Your task to perform on an android device: set an alarm Image 0: 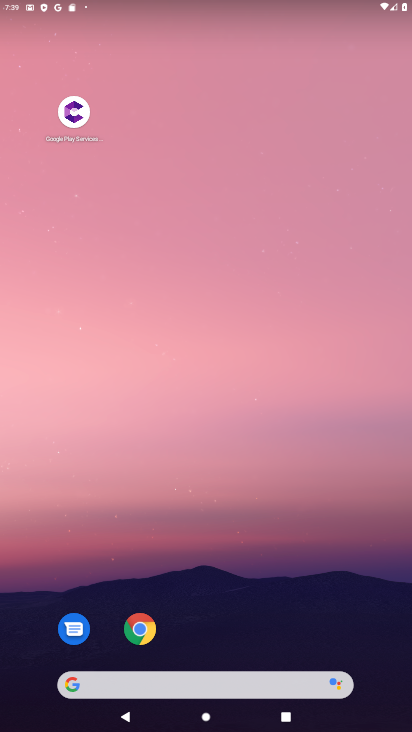
Step 0: drag from (225, 658) to (228, 34)
Your task to perform on an android device: set an alarm Image 1: 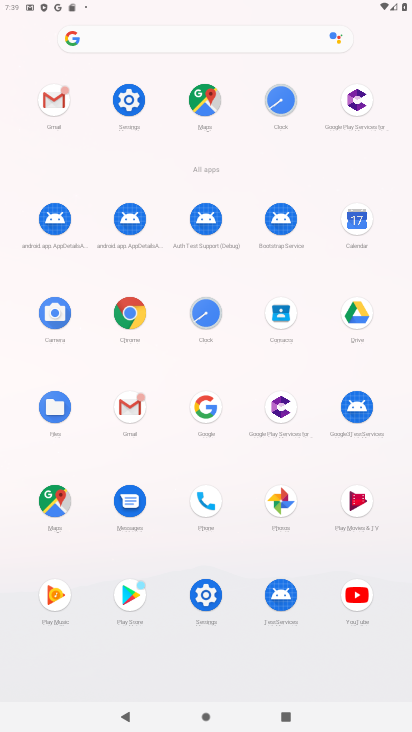
Step 1: click (178, 311)
Your task to perform on an android device: set an alarm Image 2: 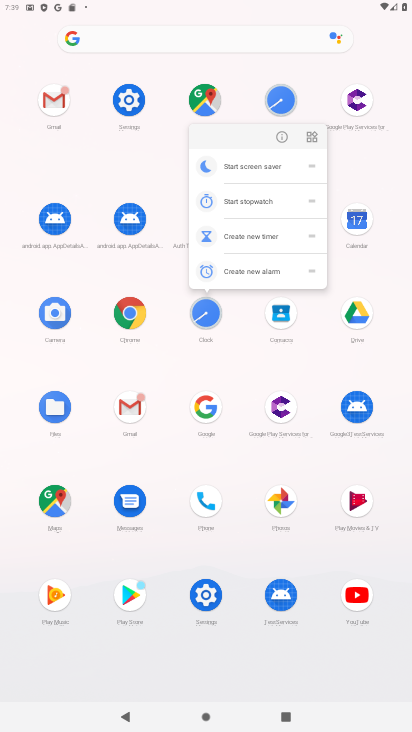
Step 2: click (212, 321)
Your task to perform on an android device: set an alarm Image 3: 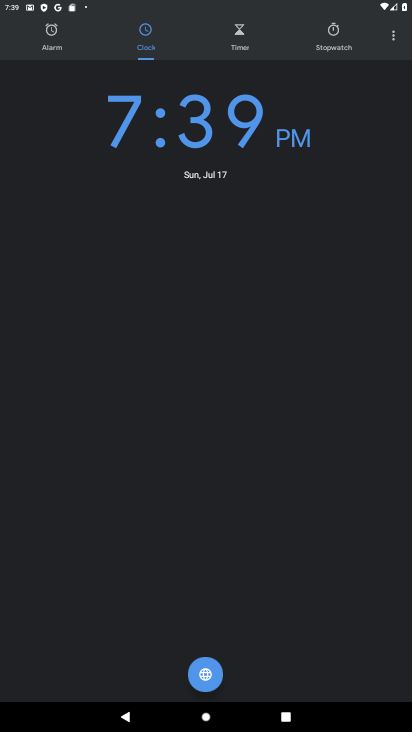
Step 3: click (43, 38)
Your task to perform on an android device: set an alarm Image 4: 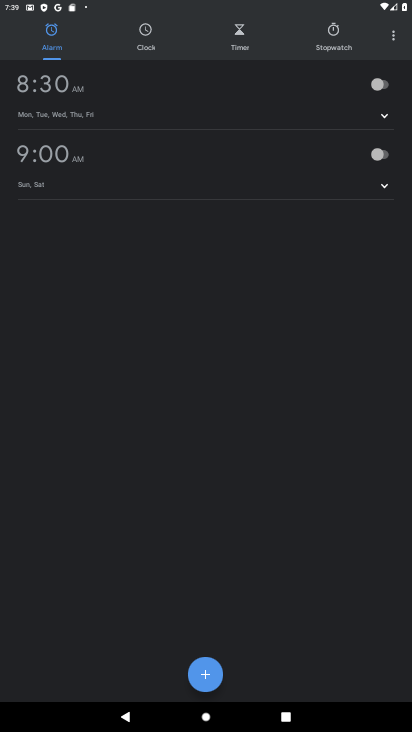
Step 4: click (200, 669)
Your task to perform on an android device: set an alarm Image 5: 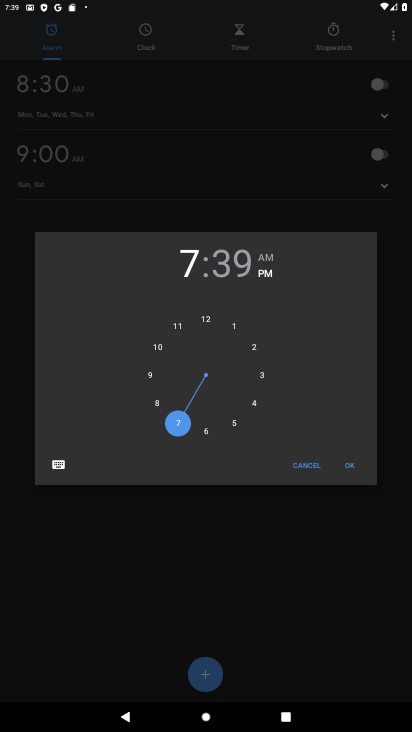
Step 5: click (357, 472)
Your task to perform on an android device: set an alarm Image 6: 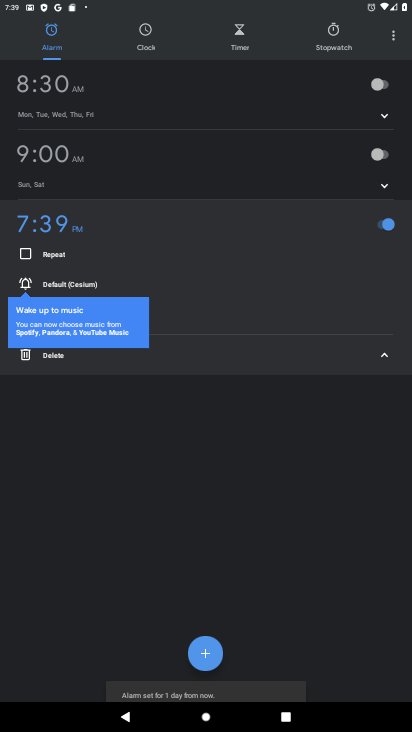
Step 6: task complete